Your task to perform on an android device: Is it going to rain today? Image 0: 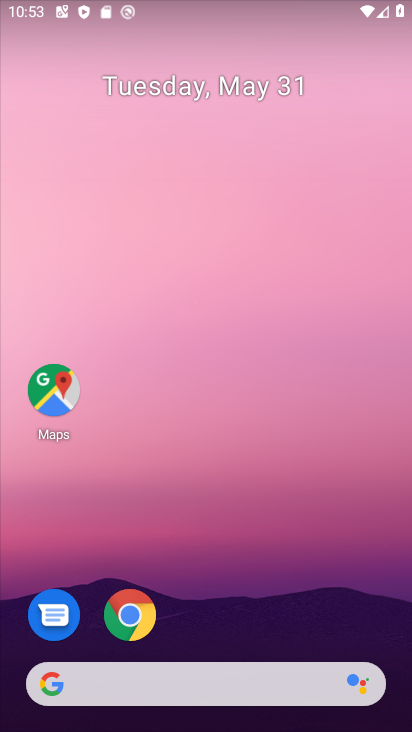
Step 0: task complete